Your task to perform on an android device: Check the weather Image 0: 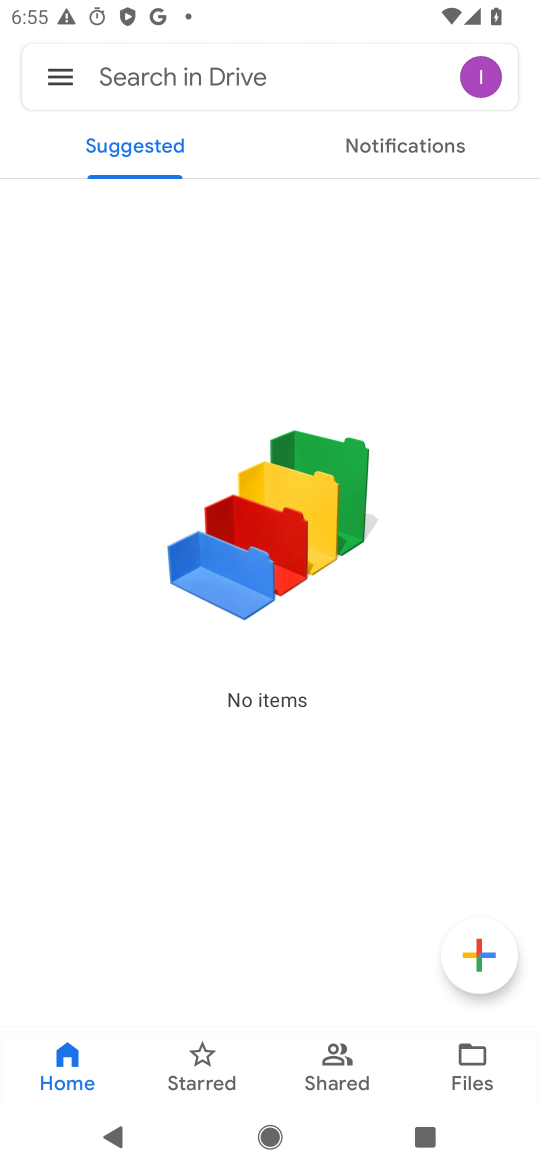
Step 0: press home button
Your task to perform on an android device: Check the weather Image 1: 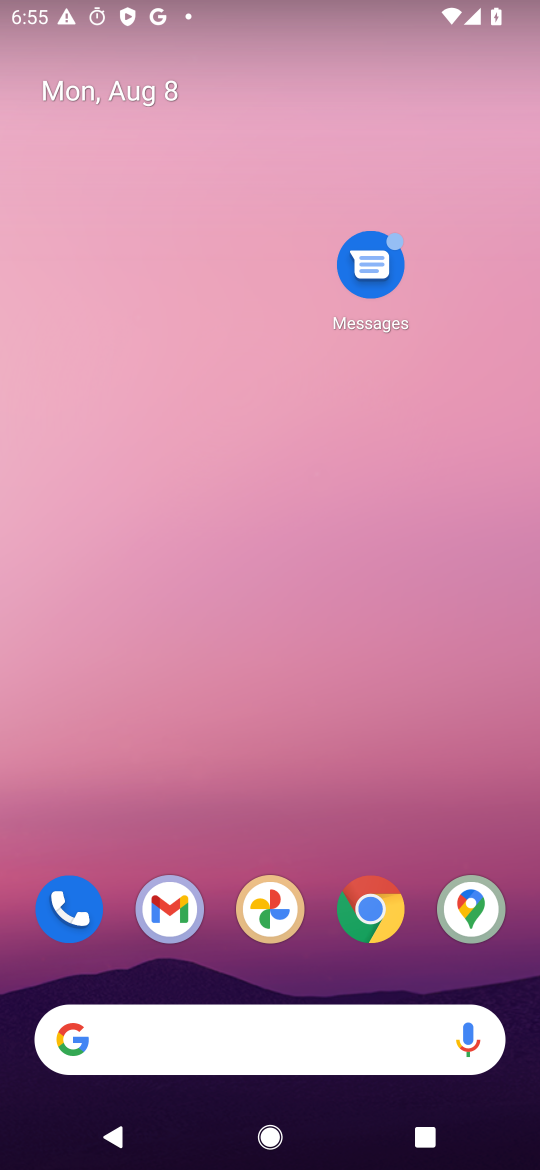
Step 1: click (175, 1041)
Your task to perform on an android device: Check the weather Image 2: 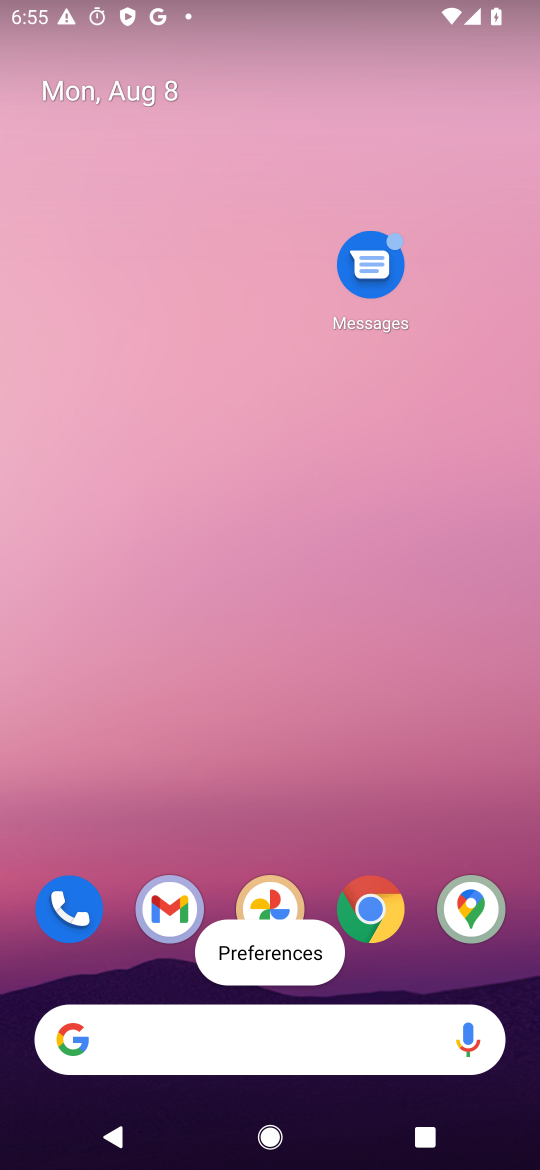
Step 2: click (194, 1031)
Your task to perform on an android device: Check the weather Image 3: 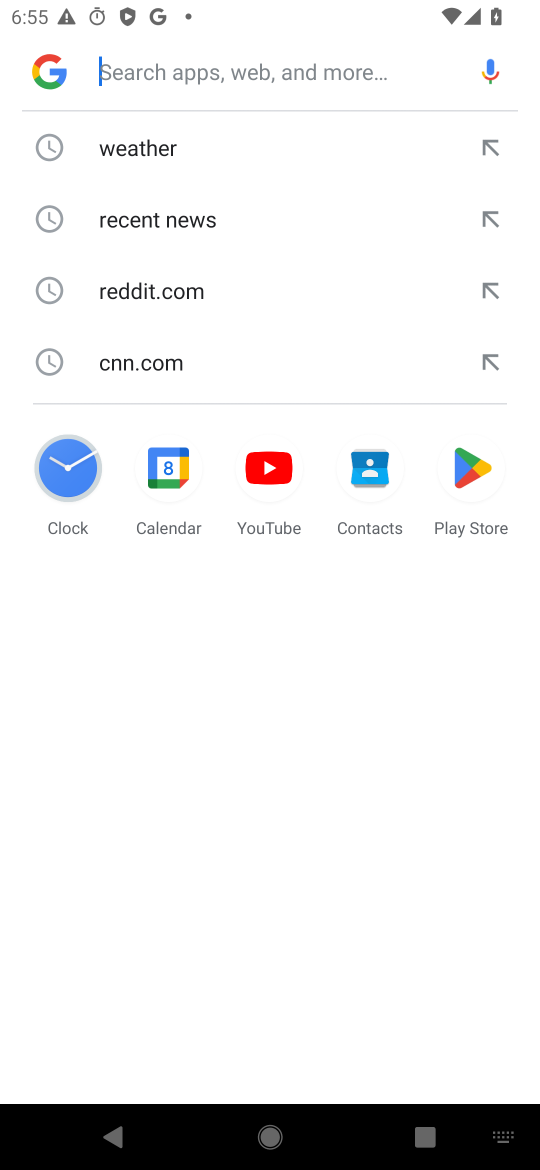
Step 3: click (125, 139)
Your task to perform on an android device: Check the weather Image 4: 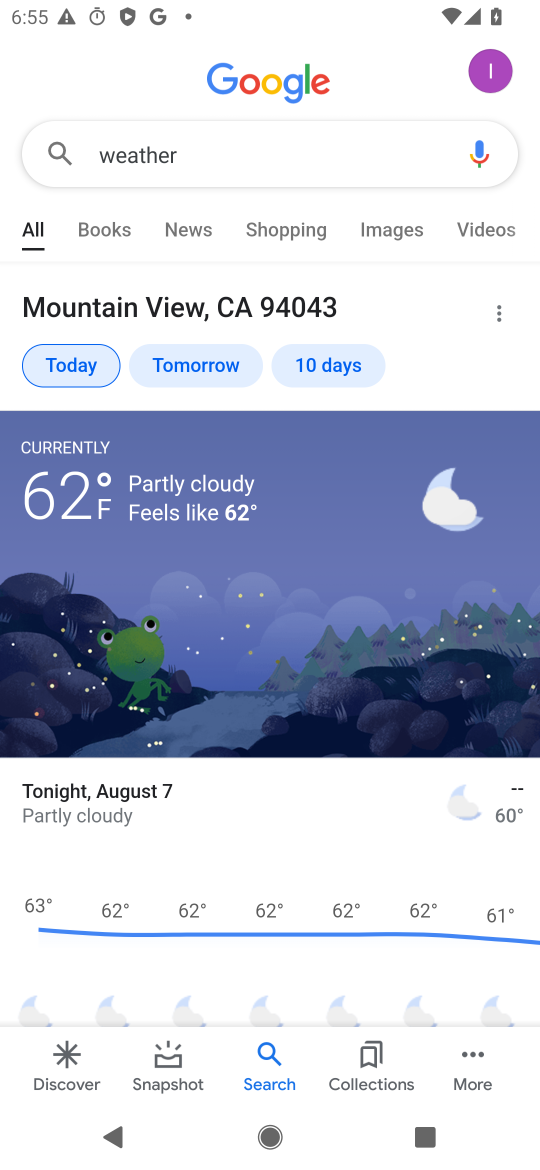
Step 4: task complete